Your task to perform on an android device: Search for sushi restaurants on Maps Image 0: 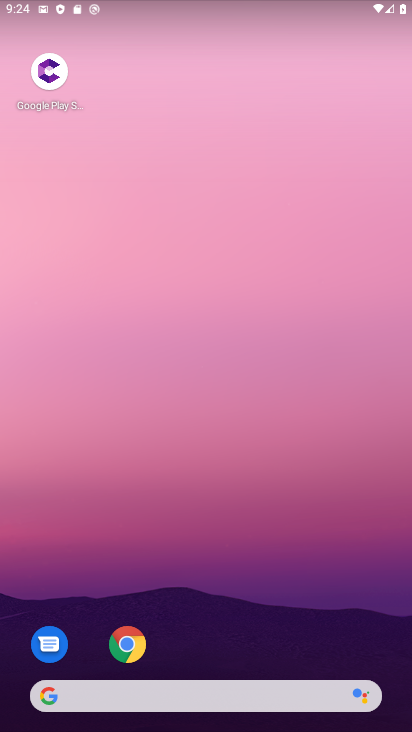
Step 0: drag from (245, 549) to (248, 99)
Your task to perform on an android device: Search for sushi restaurants on Maps Image 1: 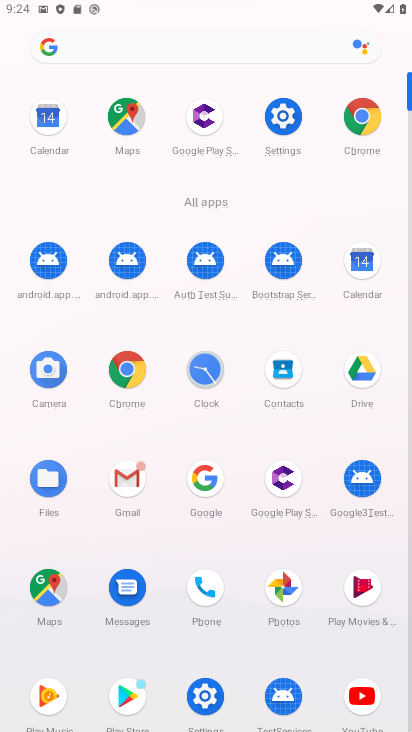
Step 1: click (50, 588)
Your task to perform on an android device: Search for sushi restaurants on Maps Image 2: 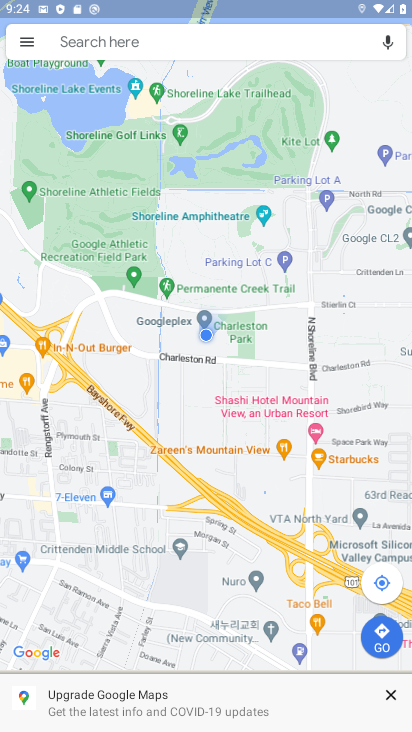
Step 2: click (171, 35)
Your task to perform on an android device: Search for sushi restaurants on Maps Image 3: 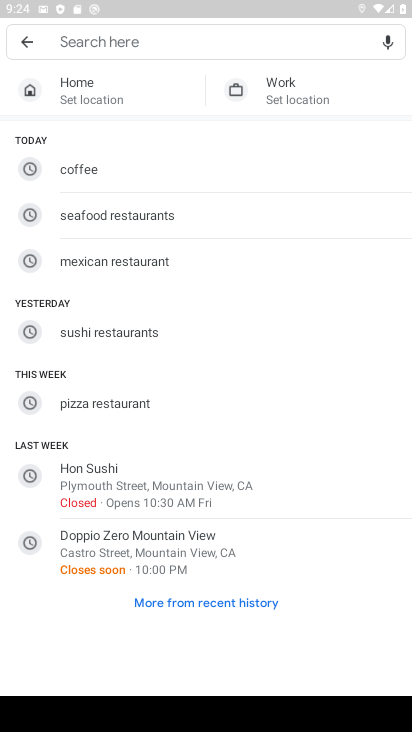
Step 3: type "sushi restaurants"
Your task to perform on an android device: Search for sushi restaurants on Maps Image 4: 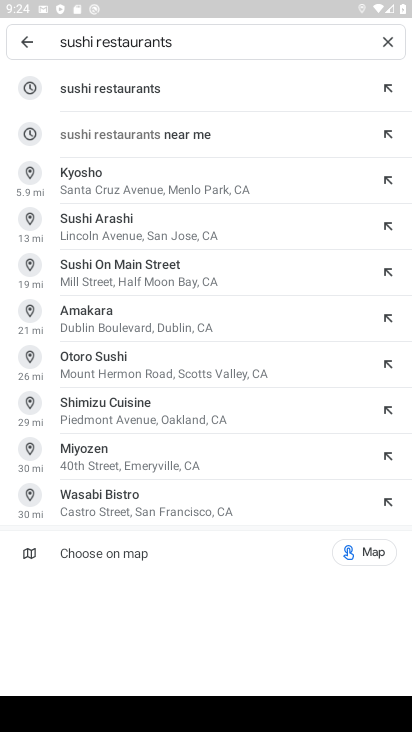
Step 4: click (173, 91)
Your task to perform on an android device: Search for sushi restaurants on Maps Image 5: 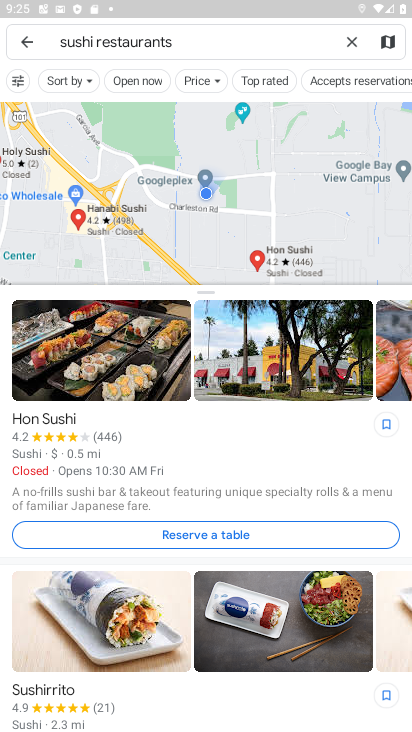
Step 5: task complete